Your task to perform on an android device: show emergency info Image 0: 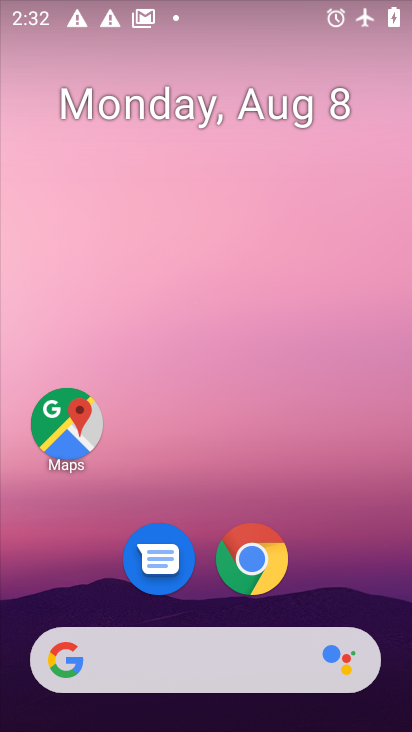
Step 0: drag from (244, 654) to (195, 204)
Your task to perform on an android device: show emergency info Image 1: 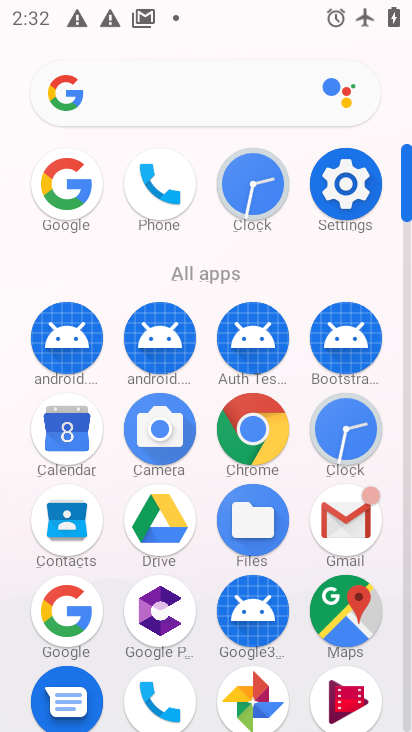
Step 1: click (345, 186)
Your task to perform on an android device: show emergency info Image 2: 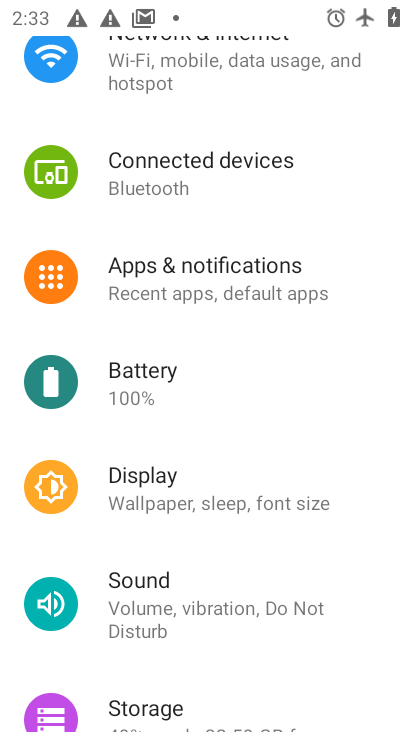
Step 2: drag from (204, 586) to (225, 329)
Your task to perform on an android device: show emergency info Image 3: 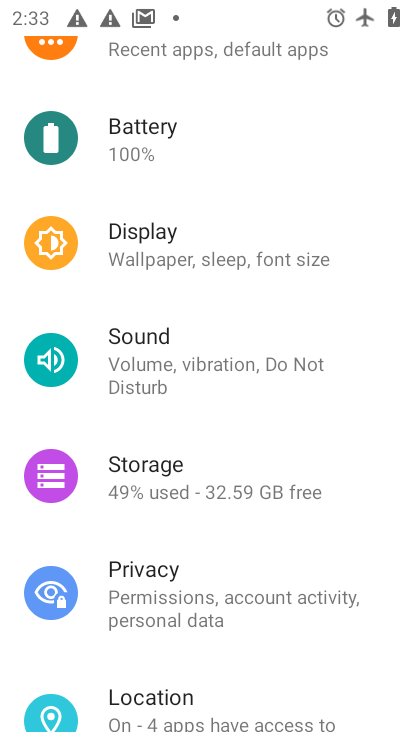
Step 3: drag from (232, 585) to (220, 476)
Your task to perform on an android device: show emergency info Image 4: 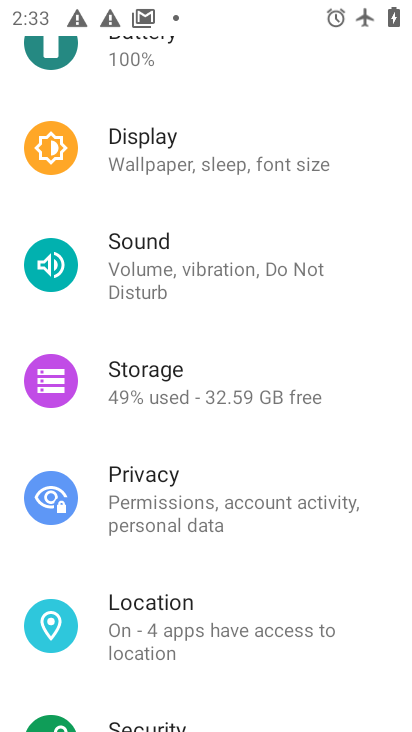
Step 4: drag from (194, 661) to (260, 427)
Your task to perform on an android device: show emergency info Image 5: 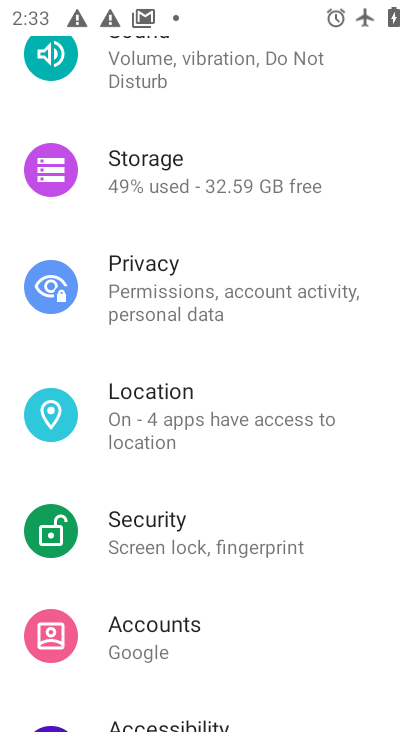
Step 5: drag from (228, 581) to (281, 461)
Your task to perform on an android device: show emergency info Image 6: 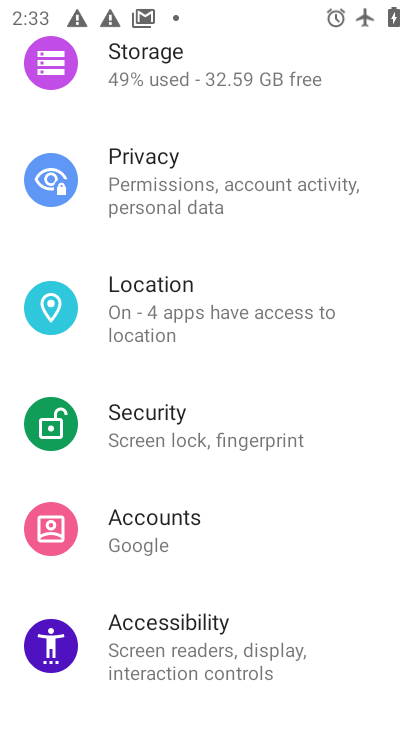
Step 6: drag from (256, 575) to (287, 478)
Your task to perform on an android device: show emergency info Image 7: 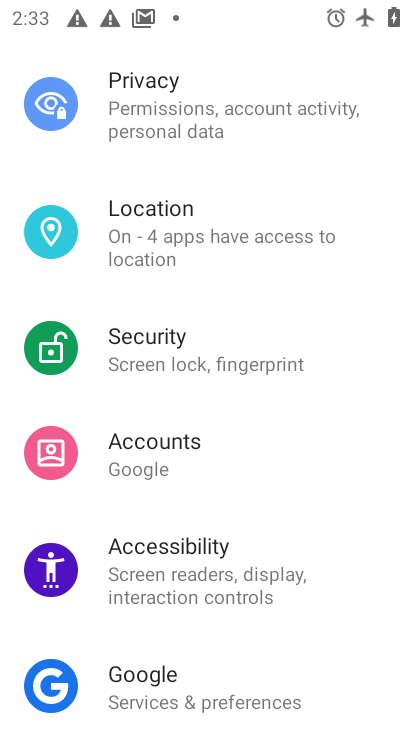
Step 7: drag from (263, 645) to (287, 534)
Your task to perform on an android device: show emergency info Image 8: 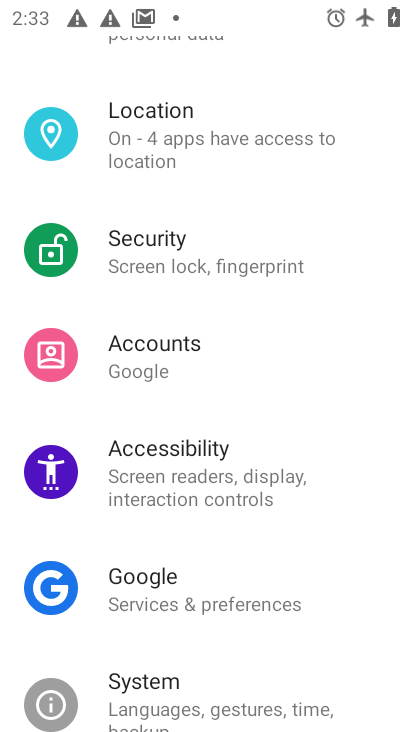
Step 8: drag from (232, 657) to (282, 542)
Your task to perform on an android device: show emergency info Image 9: 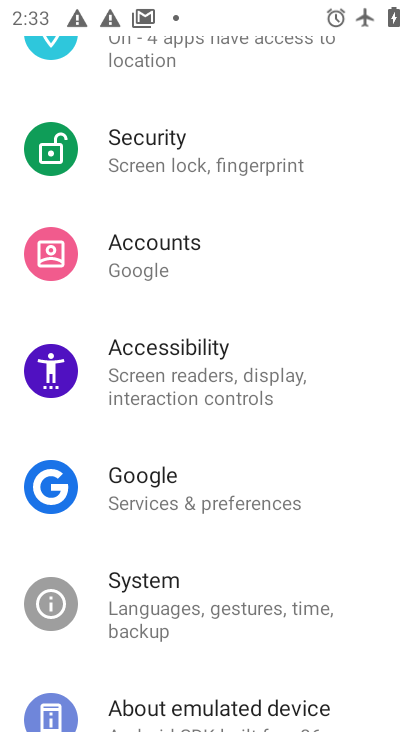
Step 9: drag from (224, 644) to (274, 449)
Your task to perform on an android device: show emergency info Image 10: 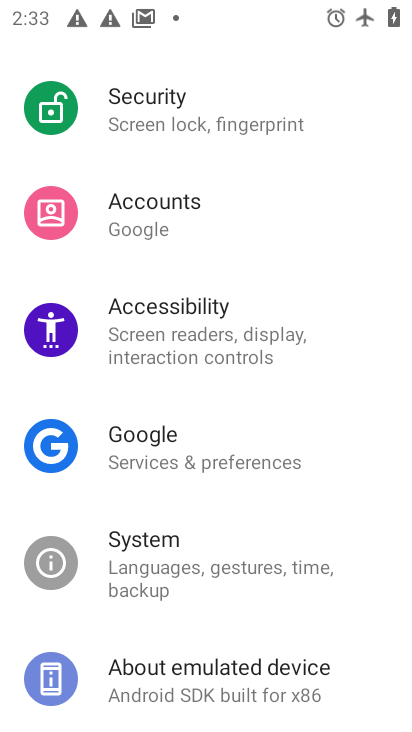
Step 10: click (209, 686)
Your task to perform on an android device: show emergency info Image 11: 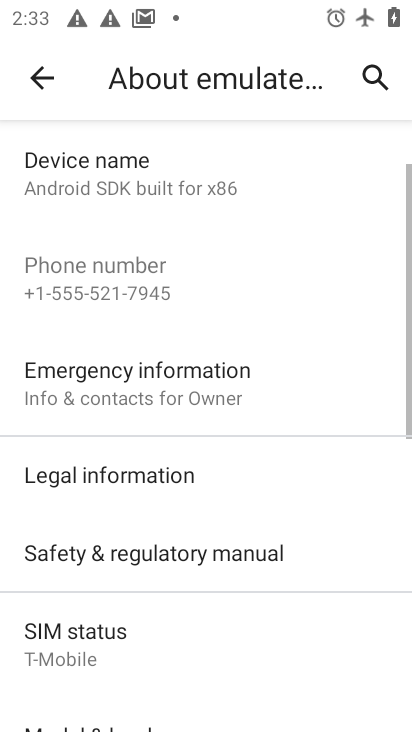
Step 11: click (180, 381)
Your task to perform on an android device: show emergency info Image 12: 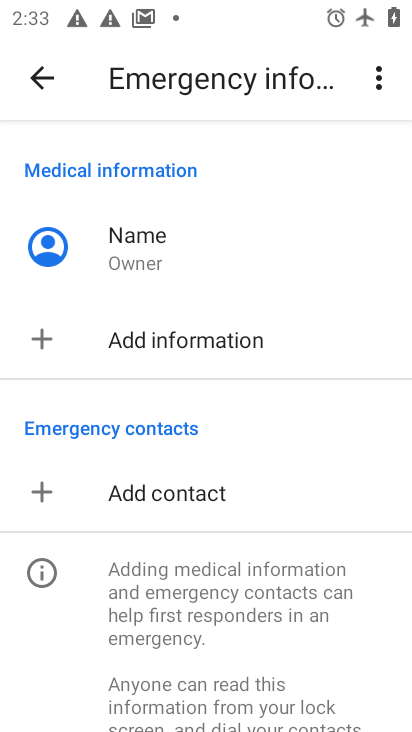
Step 12: task complete